Your task to perform on an android device: turn on notifications settings in the gmail app Image 0: 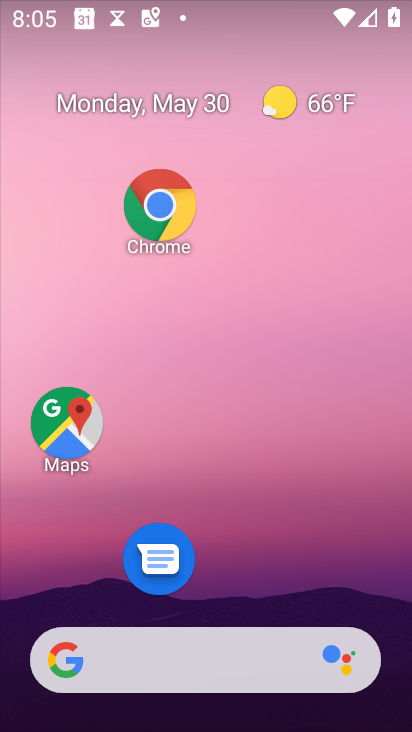
Step 0: drag from (256, 693) to (20, 62)
Your task to perform on an android device: turn on notifications settings in the gmail app Image 1: 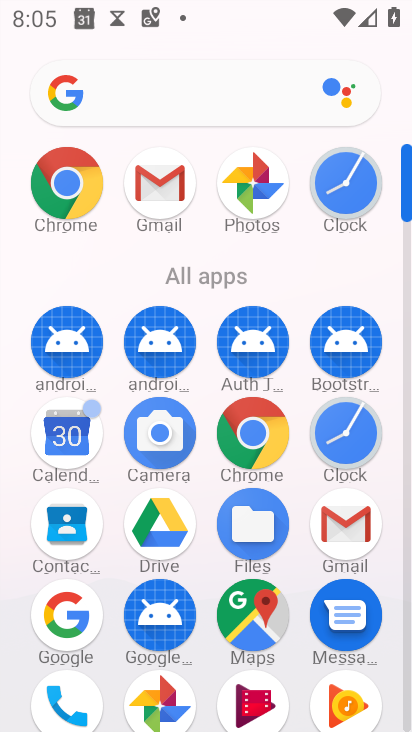
Step 1: click (346, 513)
Your task to perform on an android device: turn on notifications settings in the gmail app Image 2: 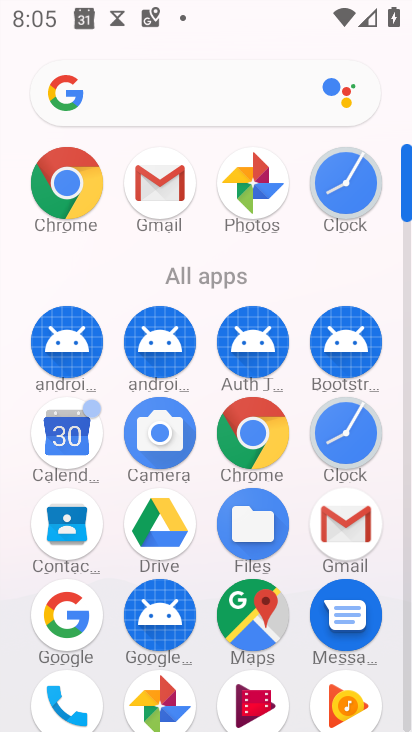
Step 2: click (348, 518)
Your task to perform on an android device: turn on notifications settings in the gmail app Image 3: 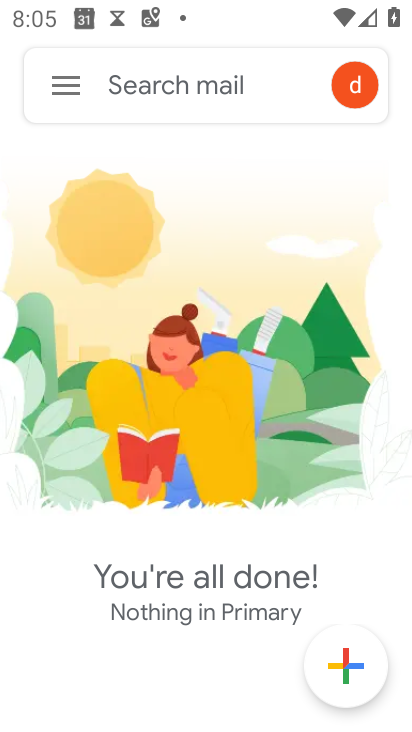
Step 3: click (62, 96)
Your task to perform on an android device: turn on notifications settings in the gmail app Image 4: 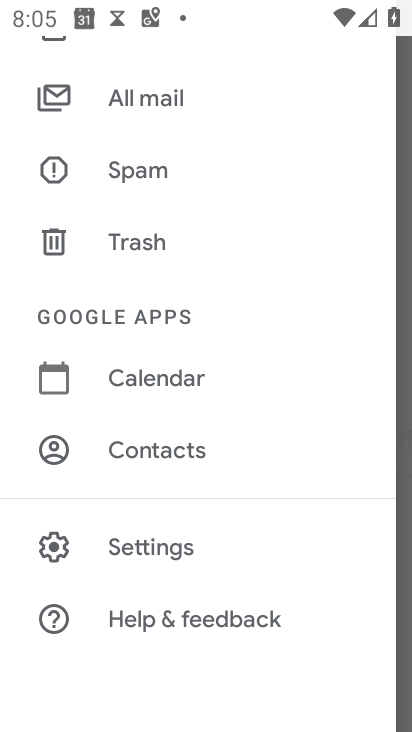
Step 4: click (150, 546)
Your task to perform on an android device: turn on notifications settings in the gmail app Image 5: 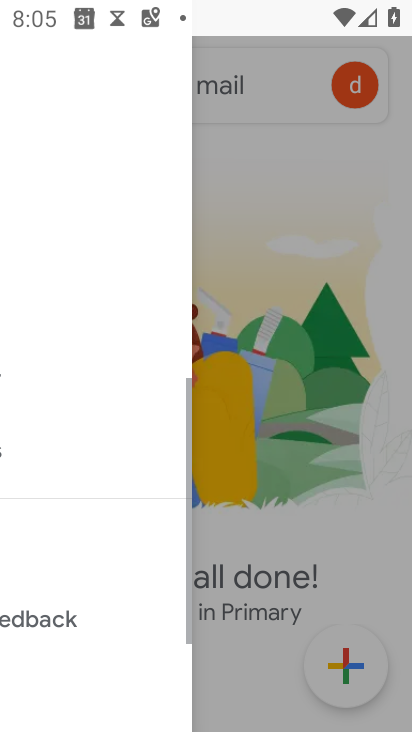
Step 5: click (150, 546)
Your task to perform on an android device: turn on notifications settings in the gmail app Image 6: 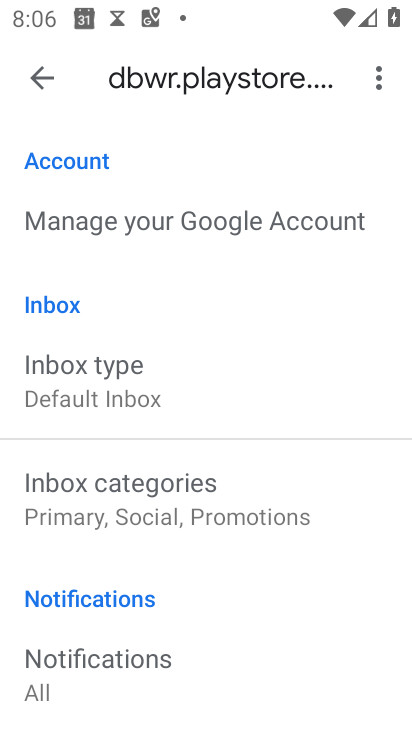
Step 6: click (79, 656)
Your task to perform on an android device: turn on notifications settings in the gmail app Image 7: 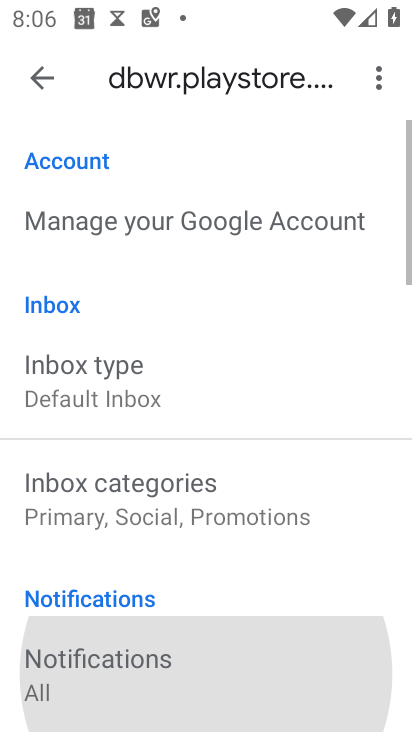
Step 7: click (81, 668)
Your task to perform on an android device: turn on notifications settings in the gmail app Image 8: 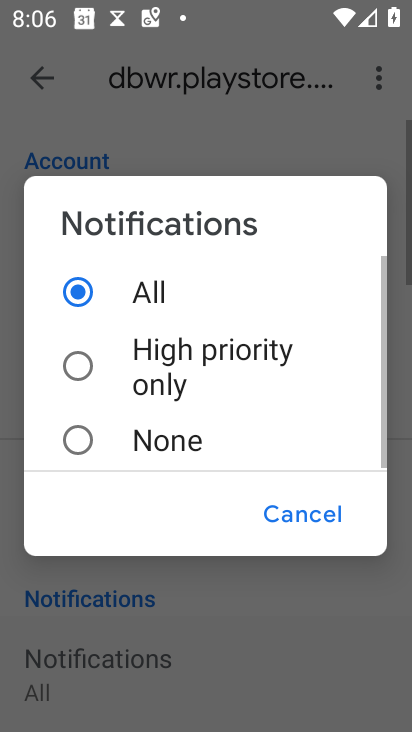
Step 8: click (81, 668)
Your task to perform on an android device: turn on notifications settings in the gmail app Image 9: 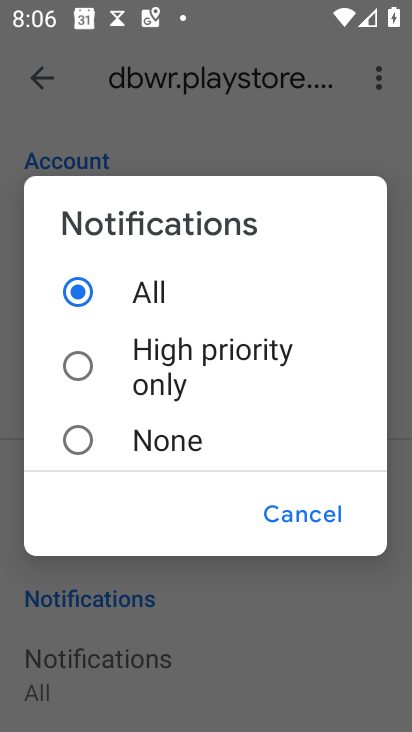
Step 9: click (299, 510)
Your task to perform on an android device: turn on notifications settings in the gmail app Image 10: 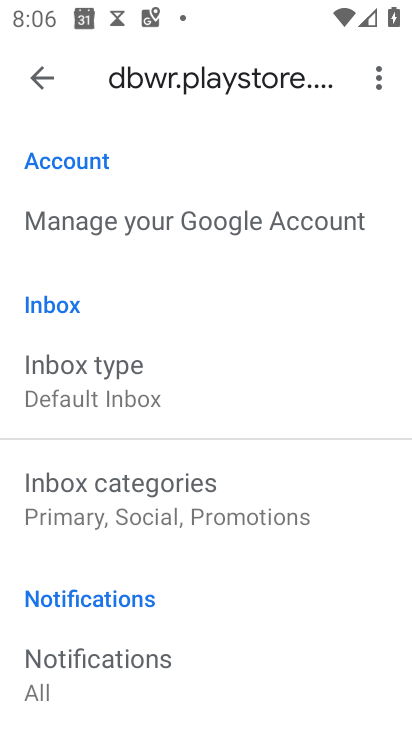
Step 10: task complete